Your task to perform on an android device: Open Google Maps Image 0: 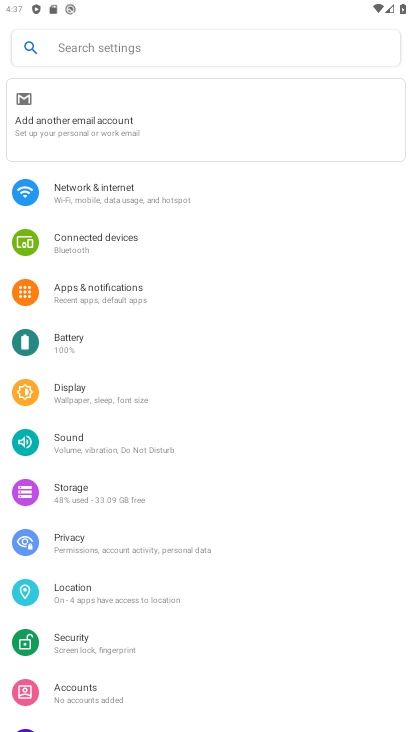
Step 0: press home button
Your task to perform on an android device: Open Google Maps Image 1: 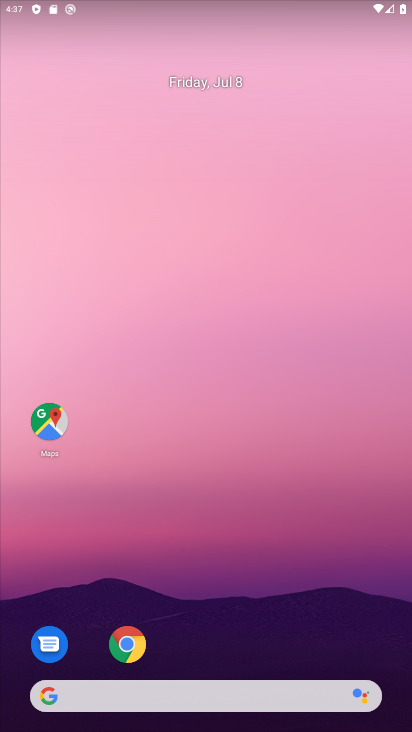
Step 1: drag from (257, 519) to (141, 19)
Your task to perform on an android device: Open Google Maps Image 2: 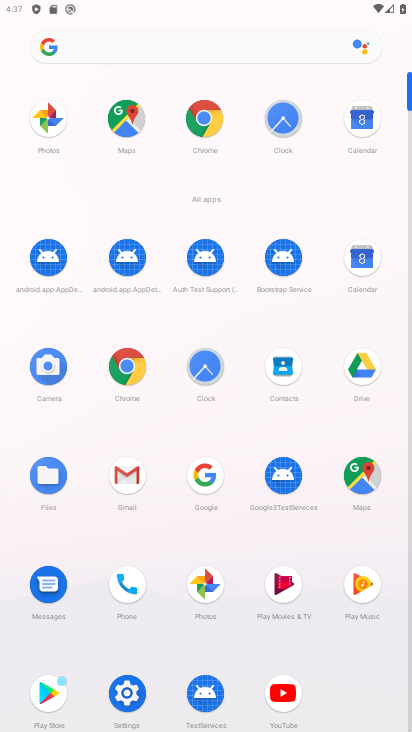
Step 2: click (126, 122)
Your task to perform on an android device: Open Google Maps Image 3: 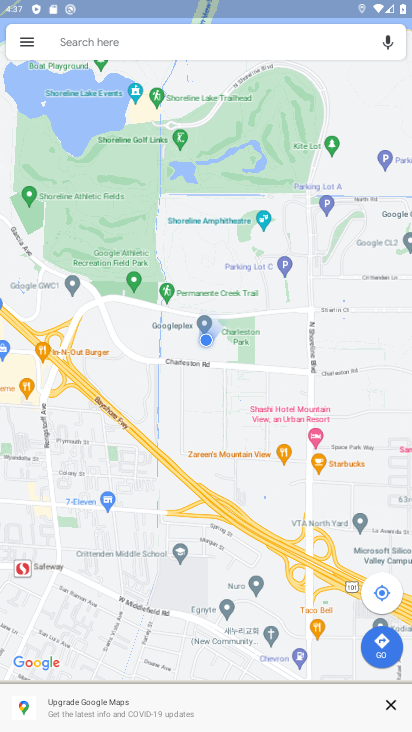
Step 3: task complete